Your task to perform on an android device: Check the news Image 0: 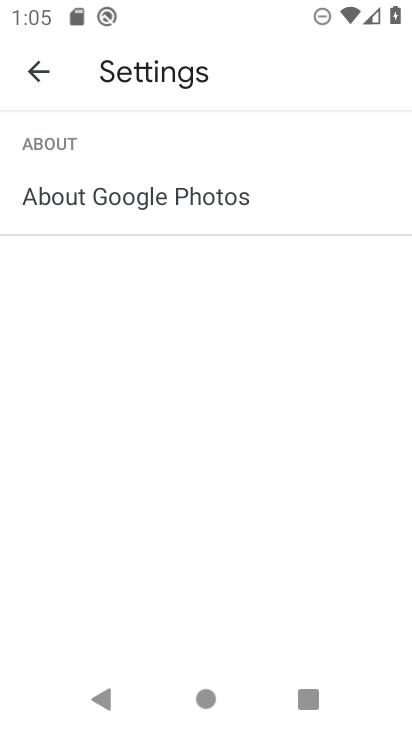
Step 0: press home button
Your task to perform on an android device: Check the news Image 1: 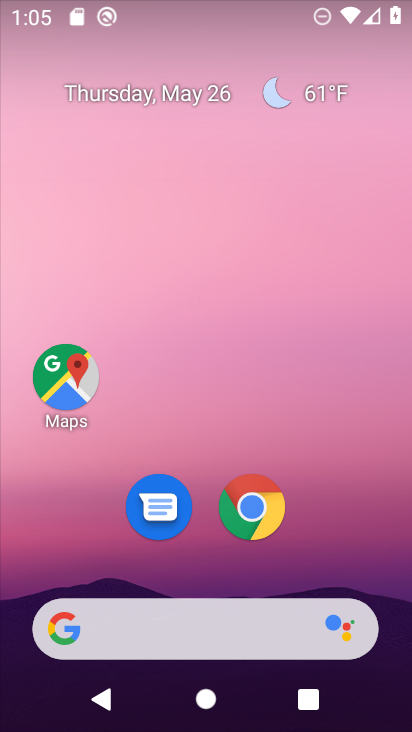
Step 1: drag from (382, 515) to (297, 47)
Your task to perform on an android device: Check the news Image 2: 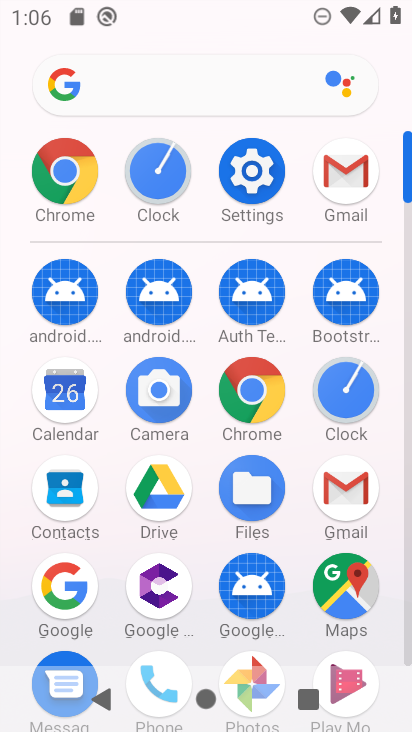
Step 2: click (186, 81)
Your task to perform on an android device: Check the news Image 3: 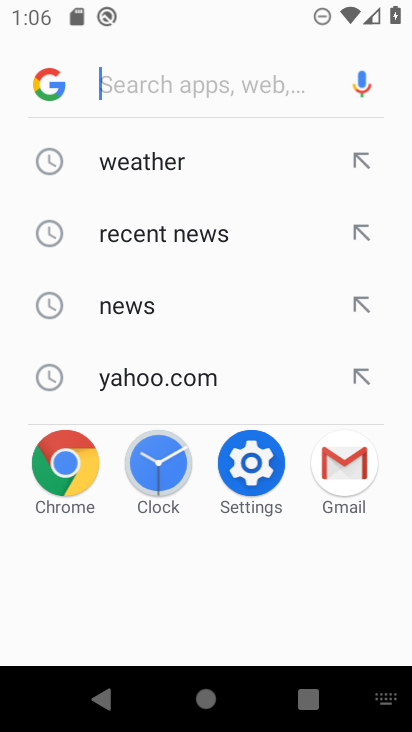
Step 3: click (188, 222)
Your task to perform on an android device: Check the news Image 4: 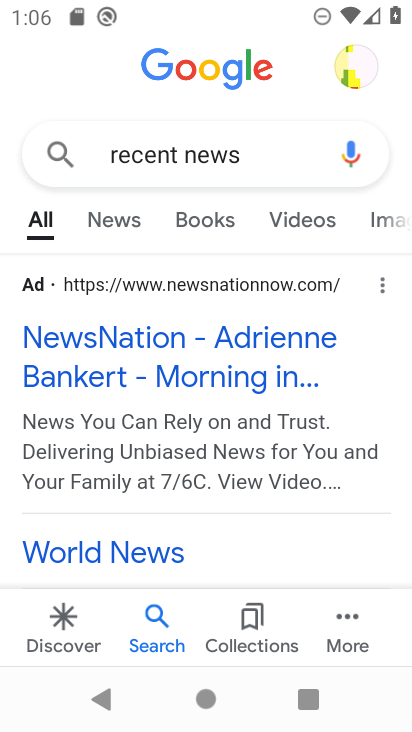
Step 4: task complete